Your task to perform on an android device: Open the phone app and click the voicemail tab. Image 0: 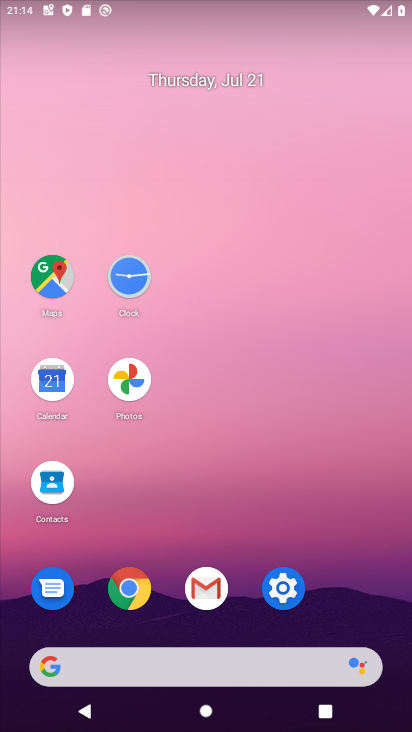
Step 0: drag from (221, 517) to (163, 164)
Your task to perform on an android device: Open the phone app and click the voicemail tab. Image 1: 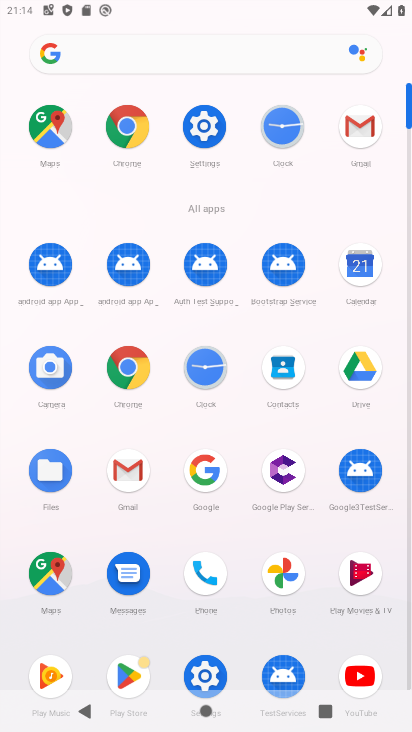
Step 1: click (208, 577)
Your task to perform on an android device: Open the phone app and click the voicemail tab. Image 2: 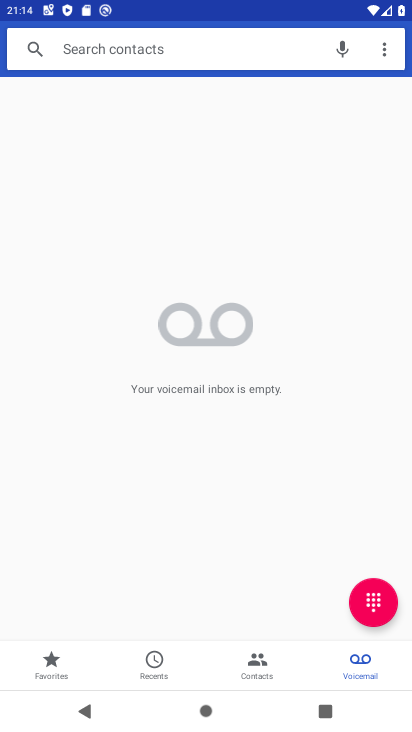
Step 2: click (358, 667)
Your task to perform on an android device: Open the phone app and click the voicemail tab. Image 3: 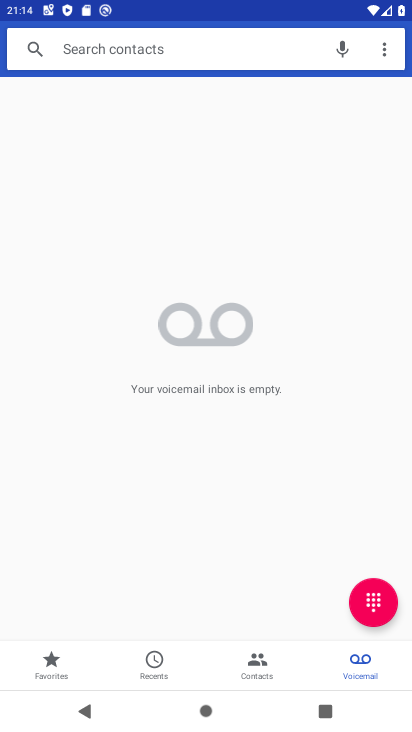
Step 3: task complete